Your task to perform on an android device: See recent photos Image 0: 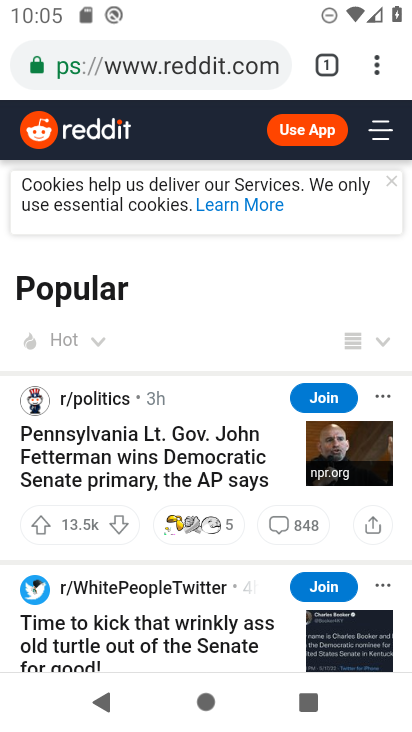
Step 0: press back button
Your task to perform on an android device: See recent photos Image 1: 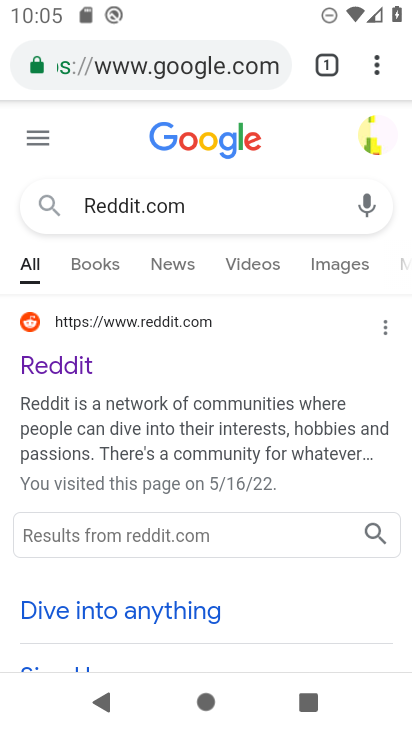
Step 1: press back button
Your task to perform on an android device: See recent photos Image 2: 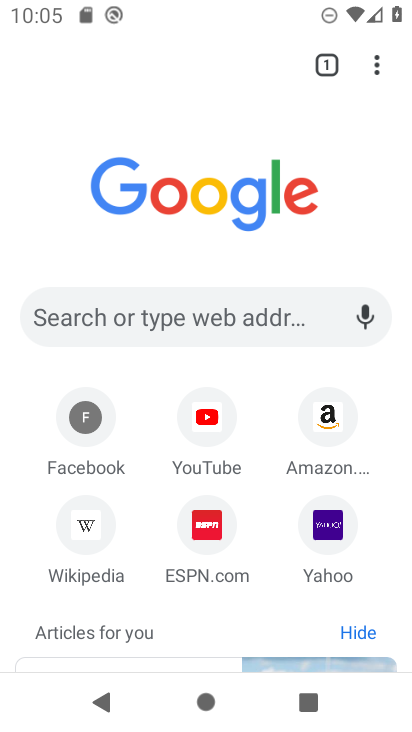
Step 2: press back button
Your task to perform on an android device: See recent photos Image 3: 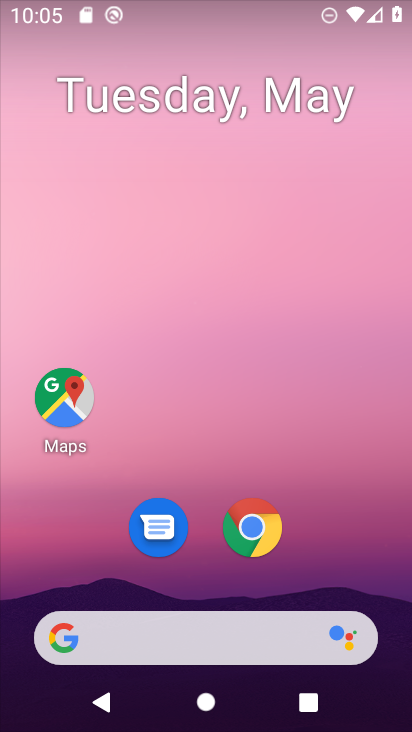
Step 3: drag from (330, 541) to (224, 109)
Your task to perform on an android device: See recent photos Image 4: 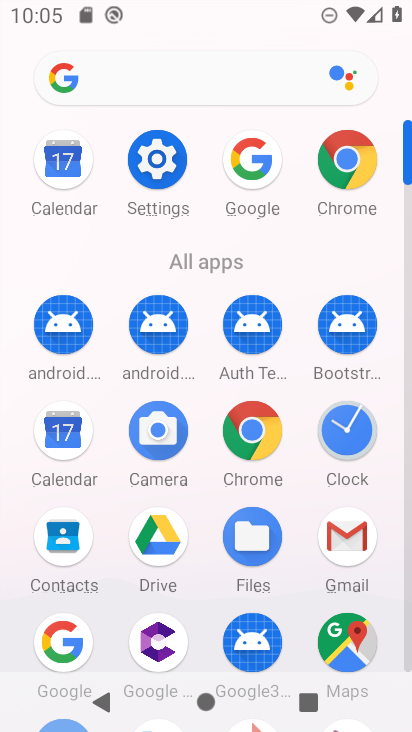
Step 4: drag from (208, 576) to (199, 344)
Your task to perform on an android device: See recent photos Image 5: 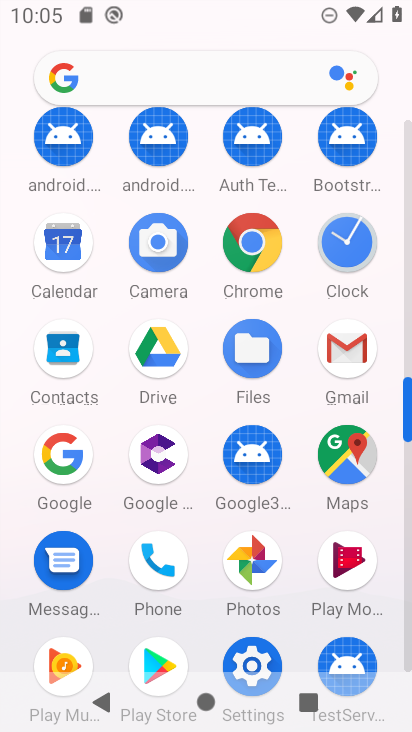
Step 5: click (256, 560)
Your task to perform on an android device: See recent photos Image 6: 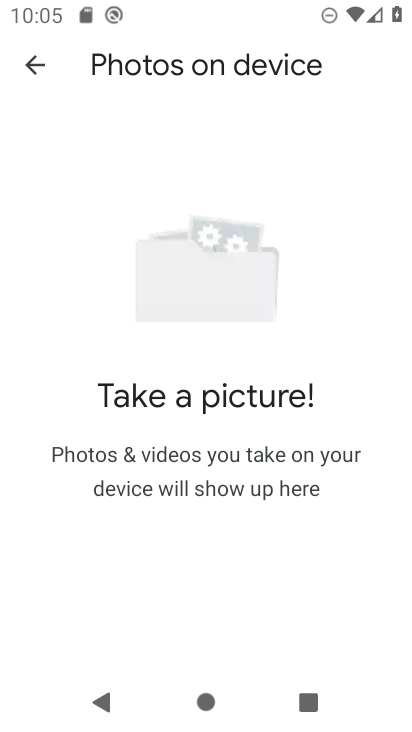
Step 6: press back button
Your task to perform on an android device: See recent photos Image 7: 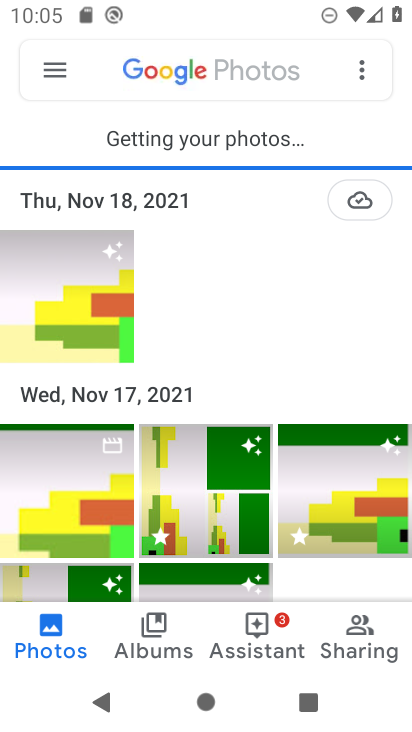
Step 7: click (94, 324)
Your task to perform on an android device: See recent photos Image 8: 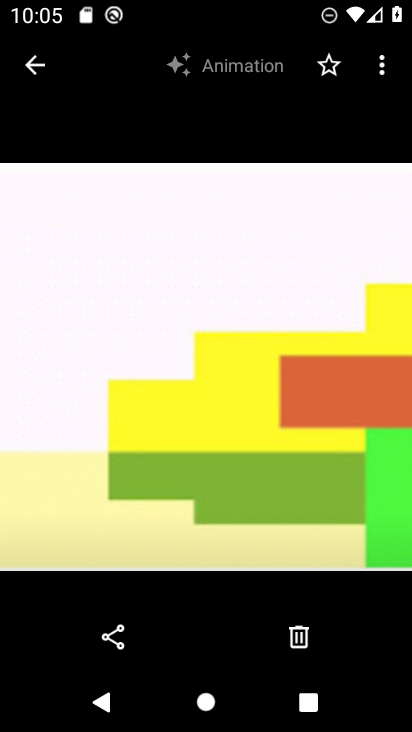
Step 8: task complete